Your task to perform on an android device: Find coffee shops on Maps Image 0: 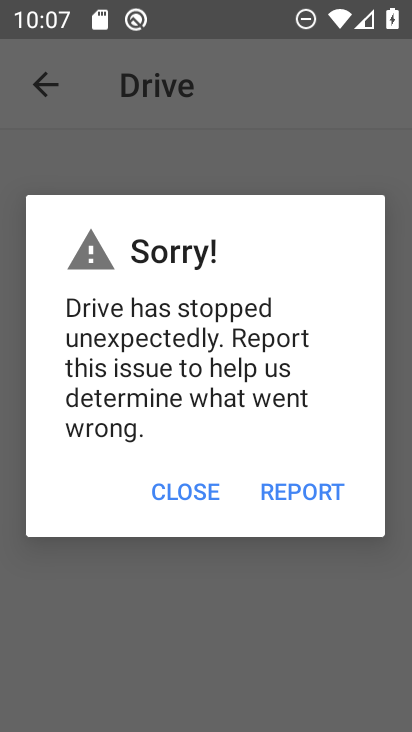
Step 0: press home button
Your task to perform on an android device: Find coffee shops on Maps Image 1: 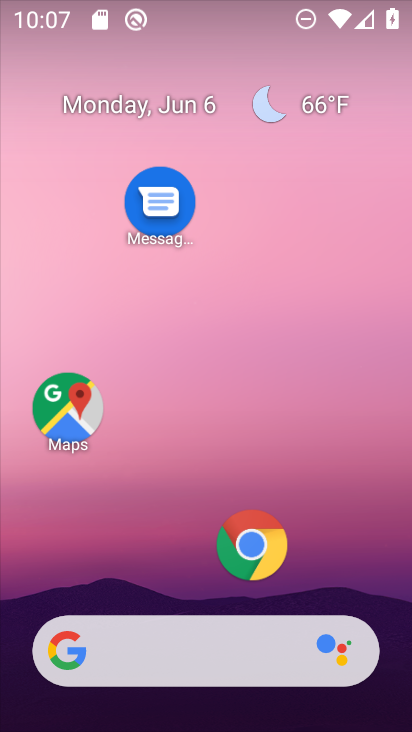
Step 1: drag from (170, 598) to (230, 87)
Your task to perform on an android device: Find coffee shops on Maps Image 2: 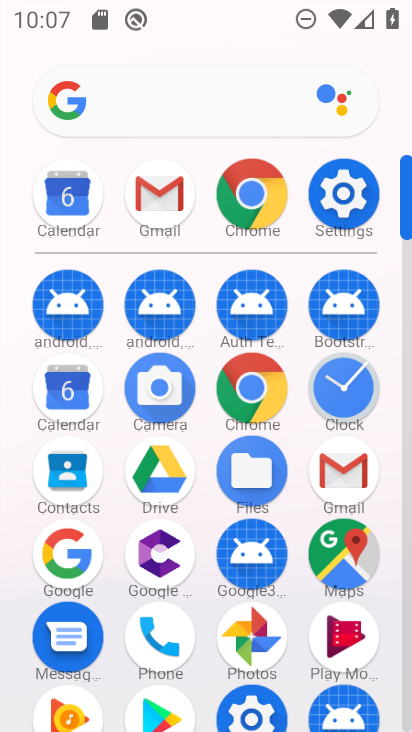
Step 2: click (353, 559)
Your task to perform on an android device: Find coffee shops on Maps Image 3: 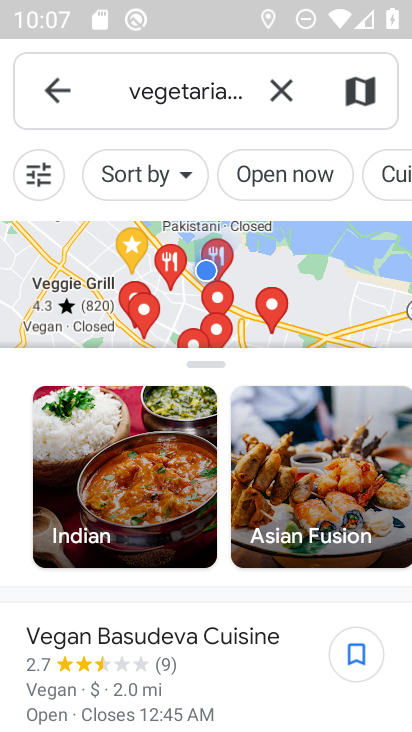
Step 3: click (287, 96)
Your task to perform on an android device: Find coffee shops on Maps Image 4: 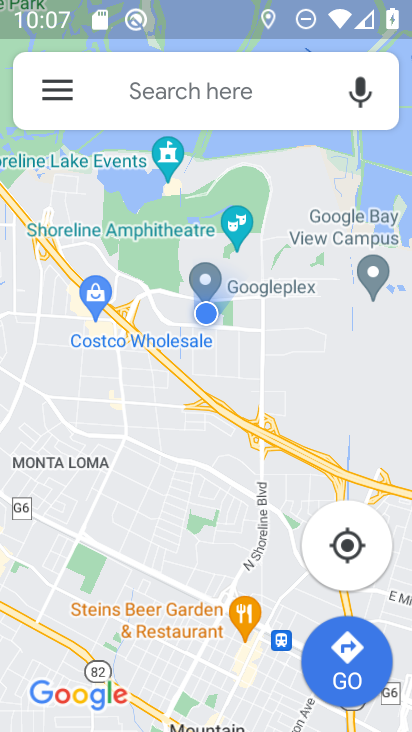
Step 4: type "coffee shops"
Your task to perform on an android device: Find coffee shops on Maps Image 5: 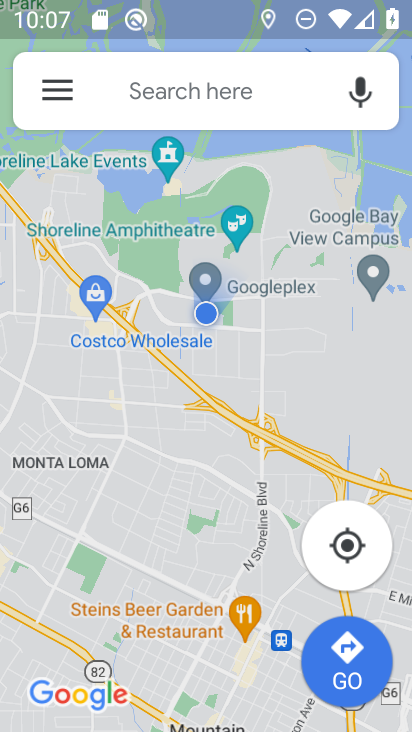
Step 5: type "coffee shops"
Your task to perform on an android device: Find coffee shops on Maps Image 6: 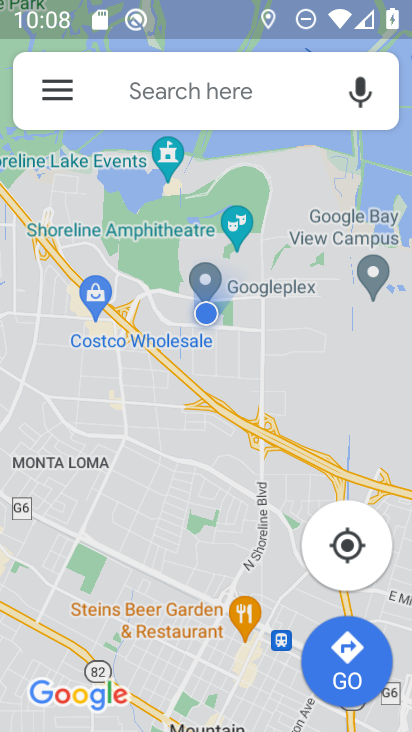
Step 6: click (195, 97)
Your task to perform on an android device: Find coffee shops on Maps Image 7: 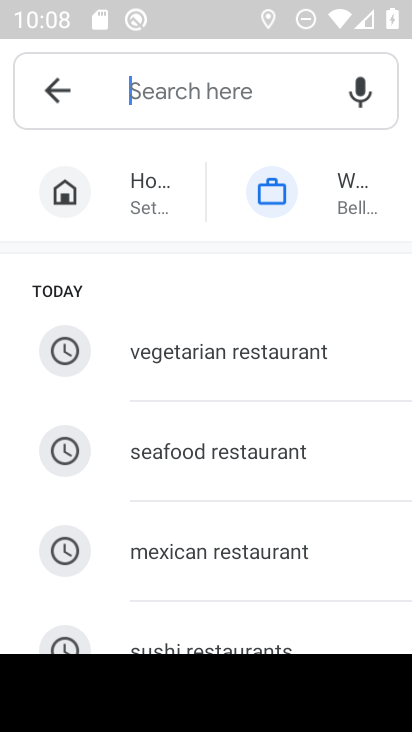
Step 7: type "coffee shops"
Your task to perform on an android device: Find coffee shops on Maps Image 8: 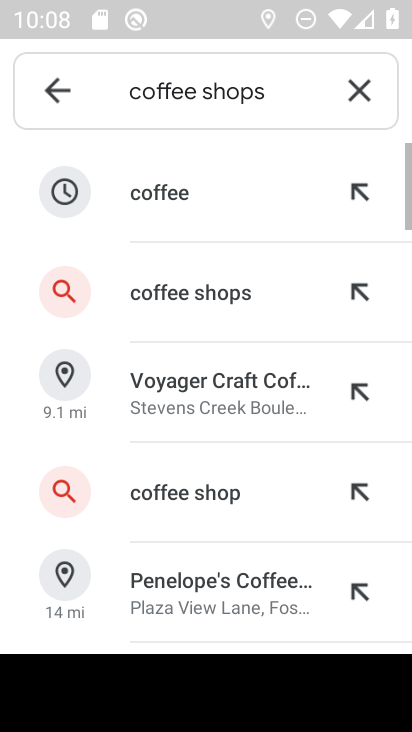
Step 8: click (181, 296)
Your task to perform on an android device: Find coffee shops on Maps Image 9: 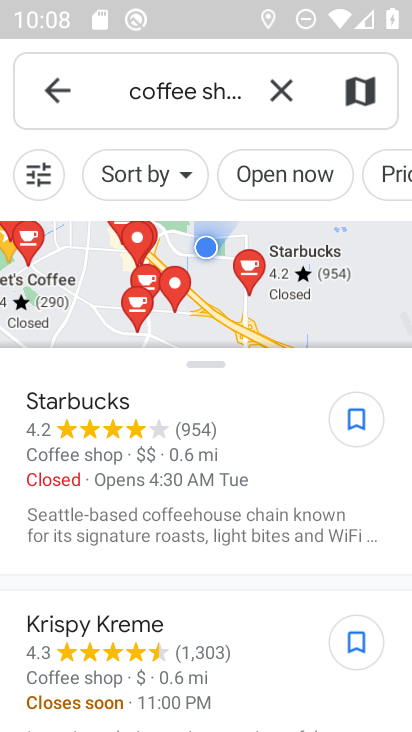
Step 9: task complete